Your task to perform on an android device: Open sound settings Image 0: 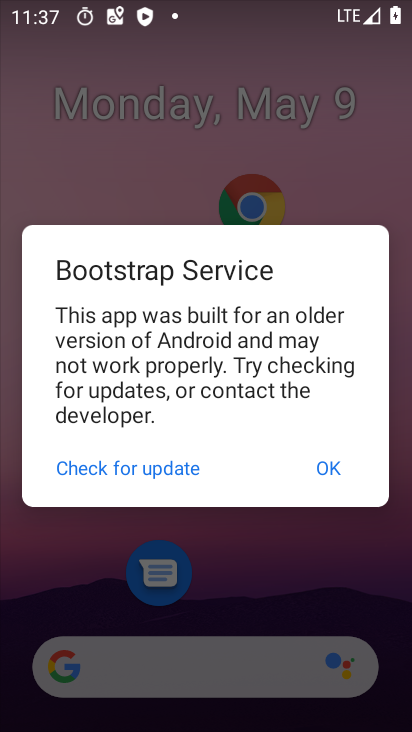
Step 0: click (331, 477)
Your task to perform on an android device: Open sound settings Image 1: 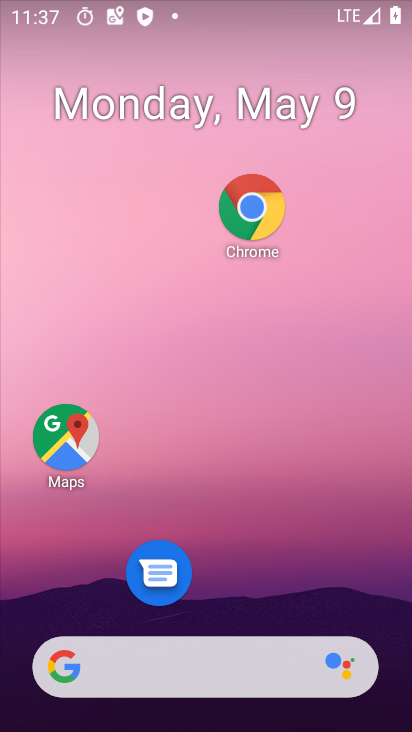
Step 1: drag from (240, 562) to (272, 59)
Your task to perform on an android device: Open sound settings Image 2: 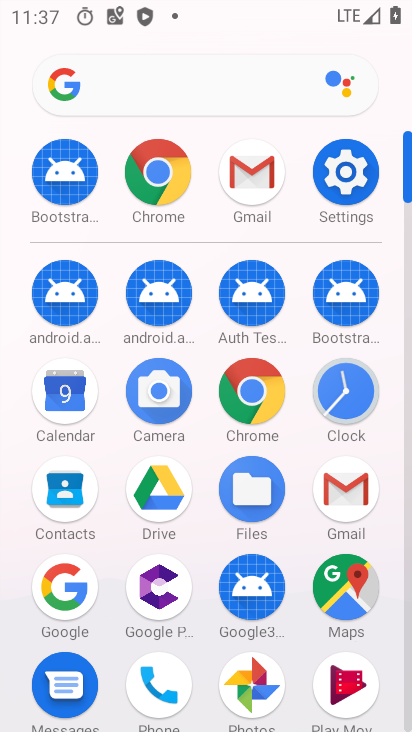
Step 2: click (350, 177)
Your task to perform on an android device: Open sound settings Image 3: 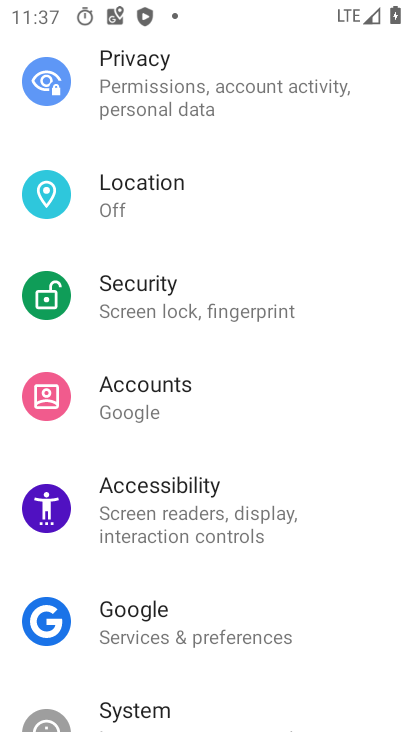
Step 3: drag from (213, 525) to (207, 151)
Your task to perform on an android device: Open sound settings Image 4: 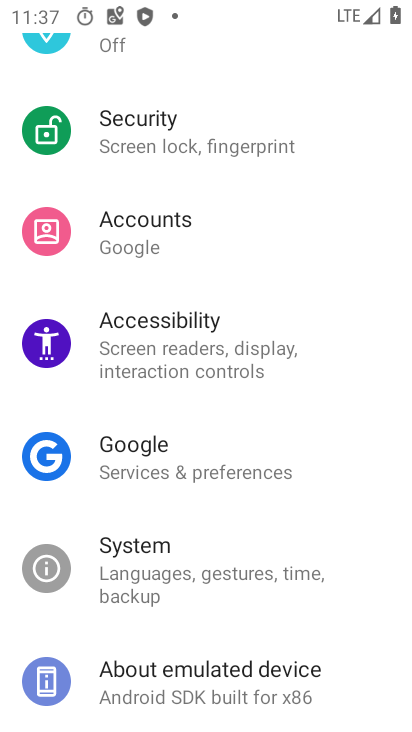
Step 4: drag from (225, 265) to (401, 731)
Your task to perform on an android device: Open sound settings Image 5: 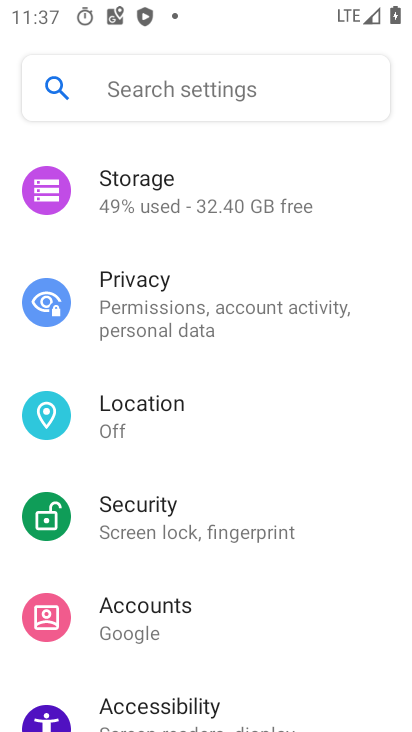
Step 5: drag from (212, 622) to (257, 295)
Your task to perform on an android device: Open sound settings Image 6: 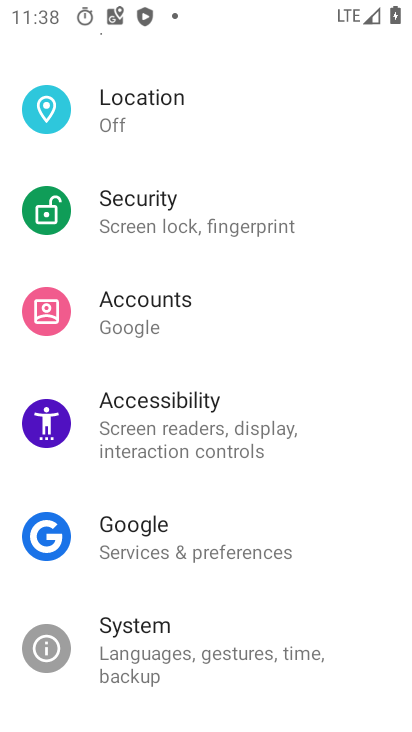
Step 6: drag from (228, 210) to (208, 727)
Your task to perform on an android device: Open sound settings Image 7: 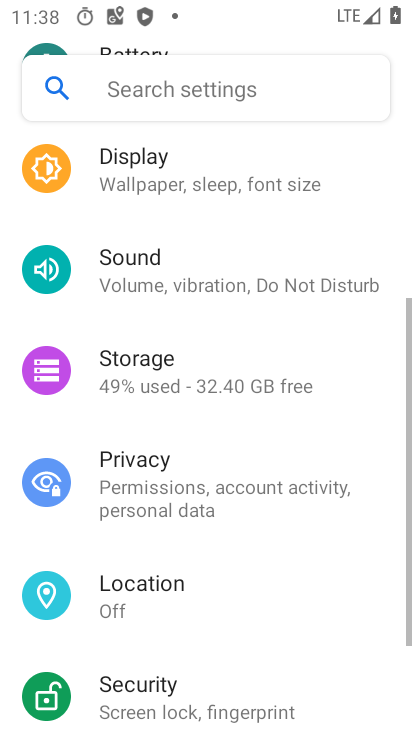
Step 7: click (247, 247)
Your task to perform on an android device: Open sound settings Image 8: 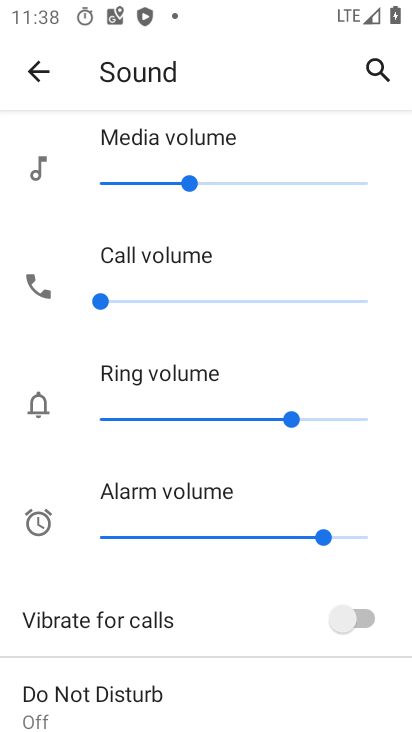
Step 8: task complete